Your task to perform on an android device: change the clock style Image 0: 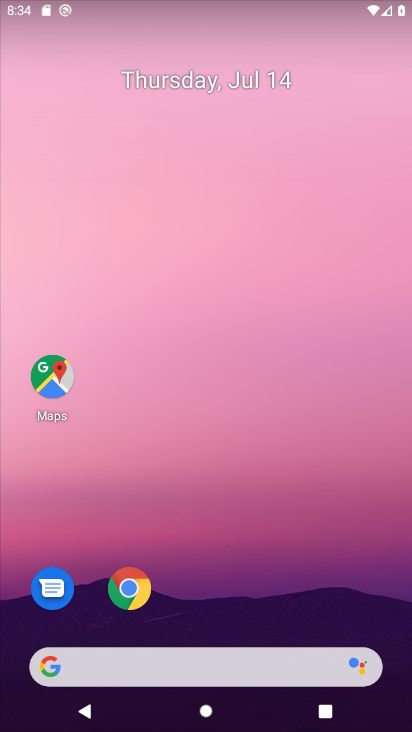
Step 0: drag from (342, 590) to (353, 104)
Your task to perform on an android device: change the clock style Image 1: 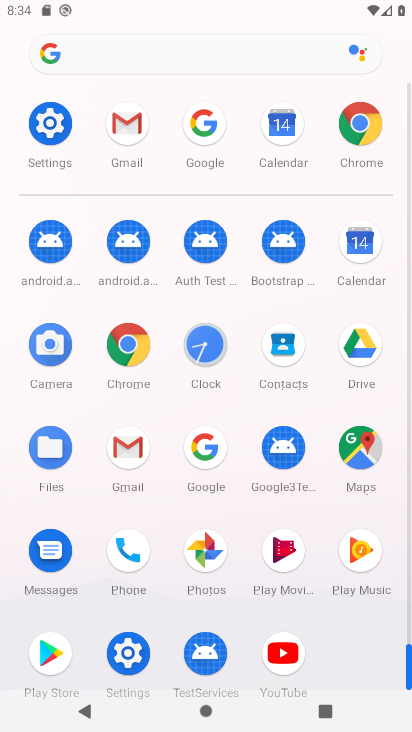
Step 1: click (209, 349)
Your task to perform on an android device: change the clock style Image 2: 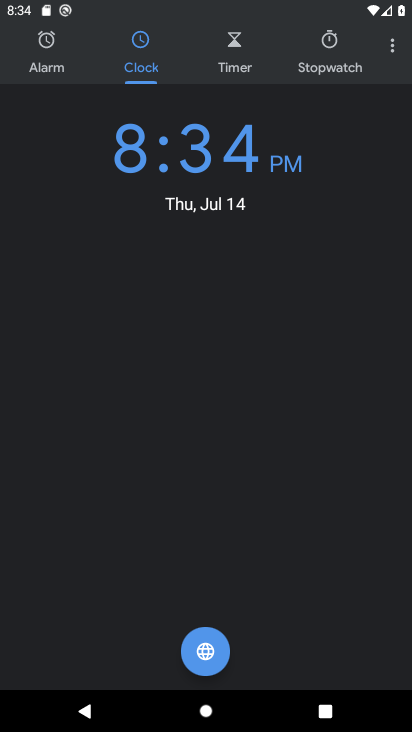
Step 2: click (390, 54)
Your task to perform on an android device: change the clock style Image 3: 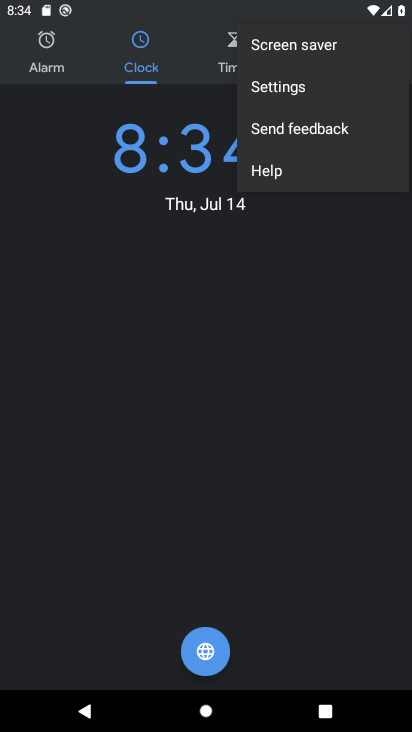
Step 3: click (291, 90)
Your task to perform on an android device: change the clock style Image 4: 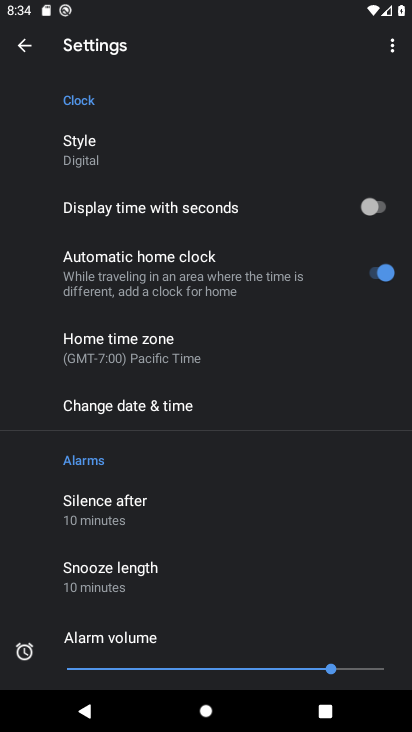
Step 4: click (131, 165)
Your task to perform on an android device: change the clock style Image 5: 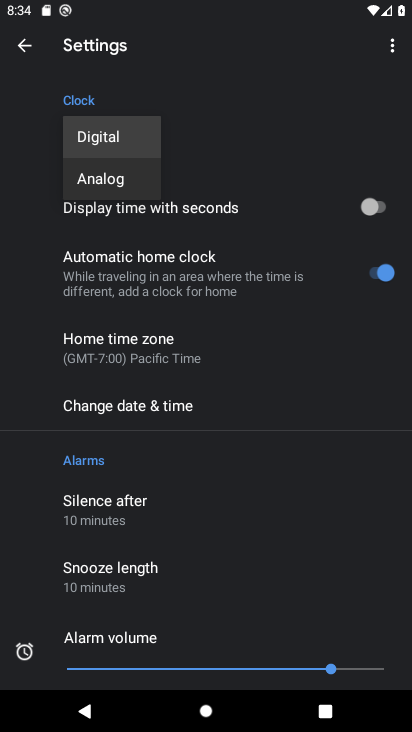
Step 5: click (132, 184)
Your task to perform on an android device: change the clock style Image 6: 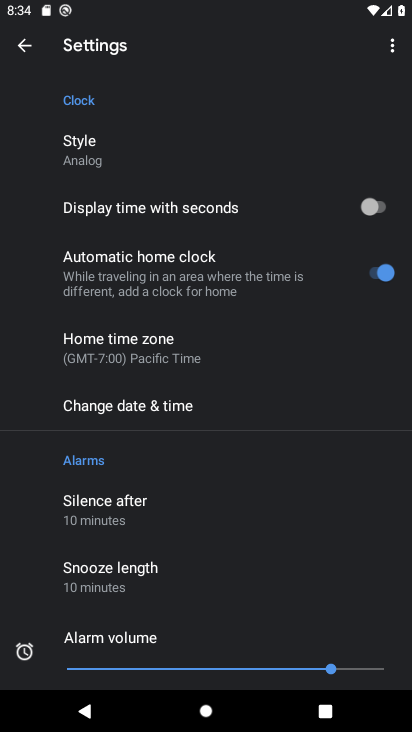
Step 6: task complete